Your task to perform on an android device: turn on the 24-hour format for clock Image 0: 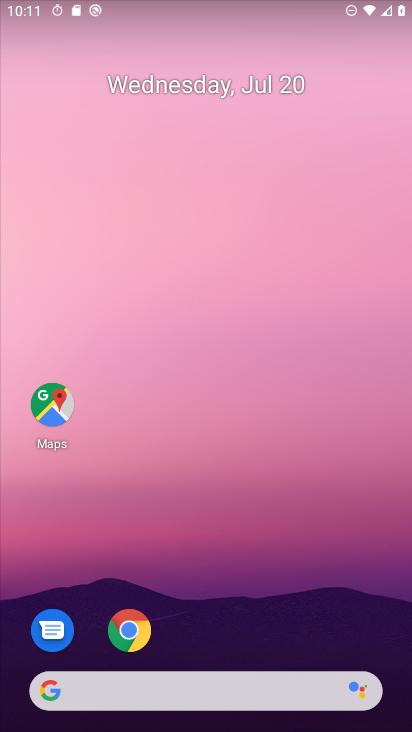
Step 0: drag from (268, 696) to (291, 161)
Your task to perform on an android device: turn on the 24-hour format for clock Image 1: 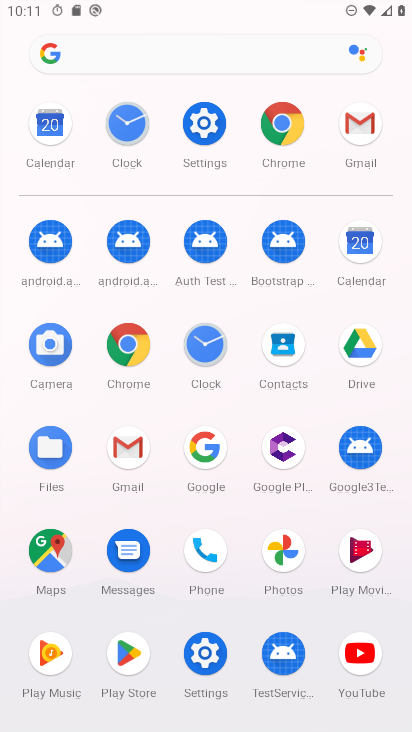
Step 1: click (217, 366)
Your task to perform on an android device: turn on the 24-hour format for clock Image 2: 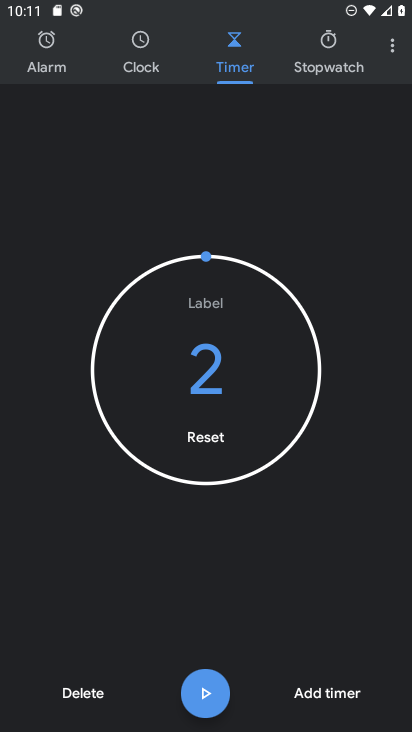
Step 2: click (397, 49)
Your task to perform on an android device: turn on the 24-hour format for clock Image 3: 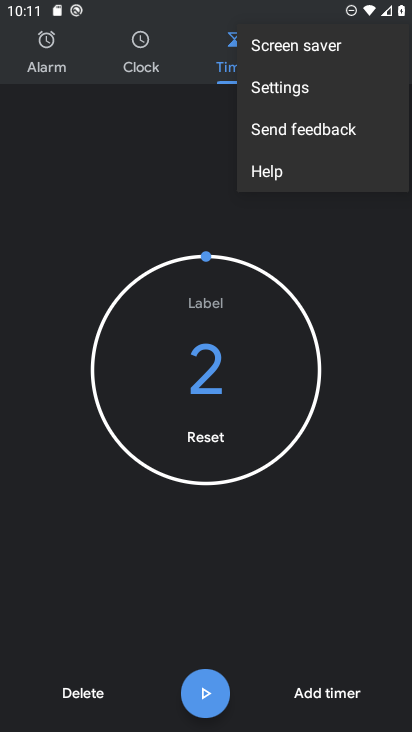
Step 3: click (286, 86)
Your task to perform on an android device: turn on the 24-hour format for clock Image 4: 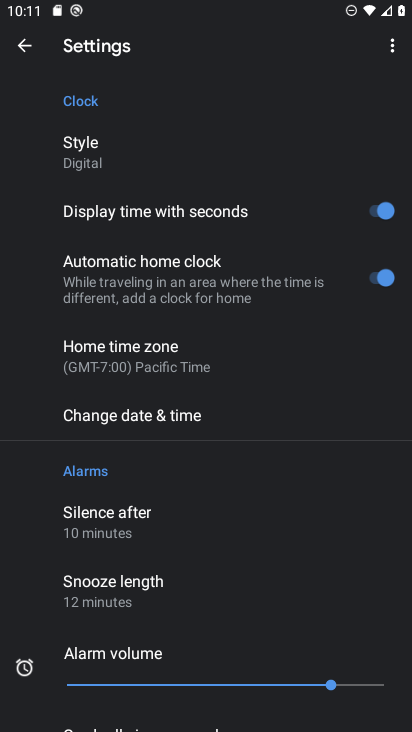
Step 4: click (244, 426)
Your task to perform on an android device: turn on the 24-hour format for clock Image 5: 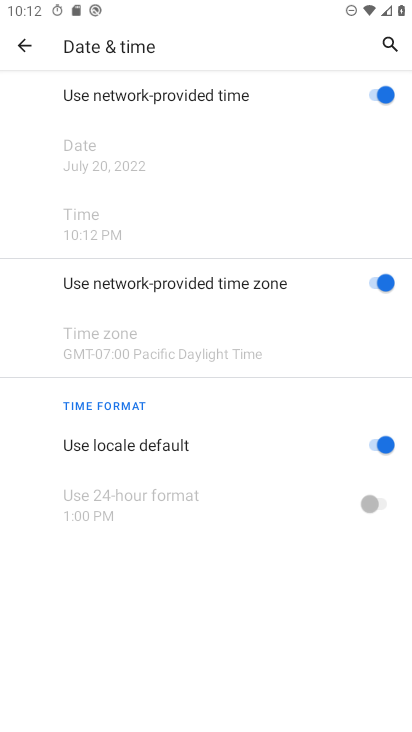
Step 5: task complete